Your task to perform on an android device: set the timer Image 0: 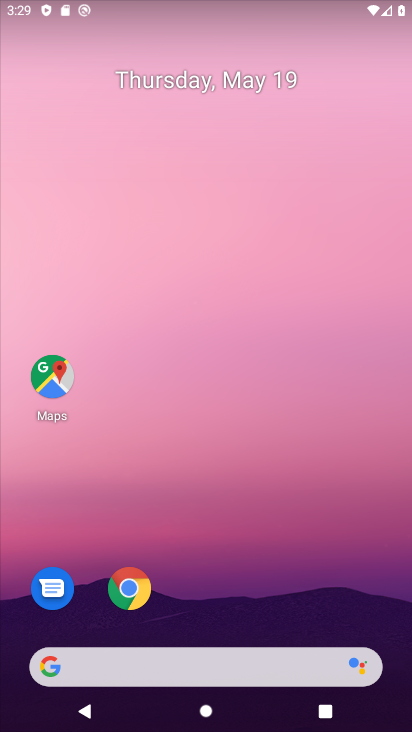
Step 0: drag from (207, 592) to (255, 283)
Your task to perform on an android device: set the timer Image 1: 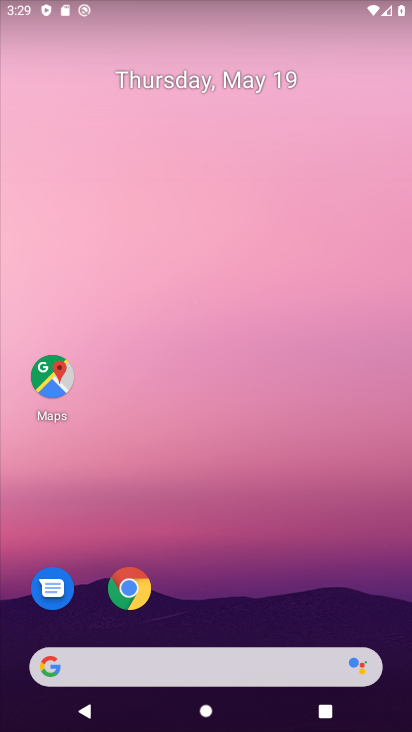
Step 1: drag from (189, 592) to (256, 105)
Your task to perform on an android device: set the timer Image 2: 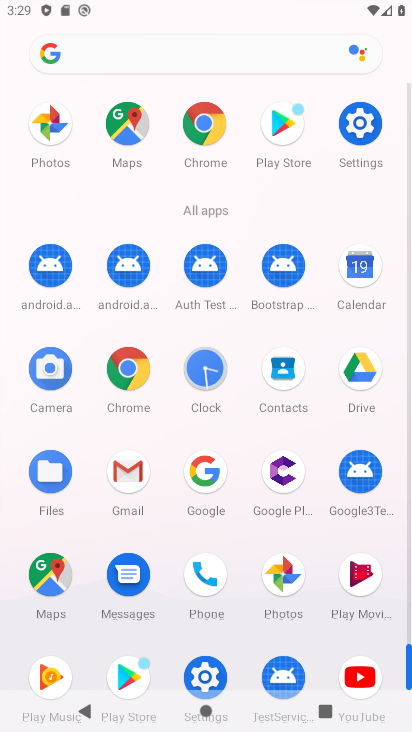
Step 2: click (204, 380)
Your task to perform on an android device: set the timer Image 3: 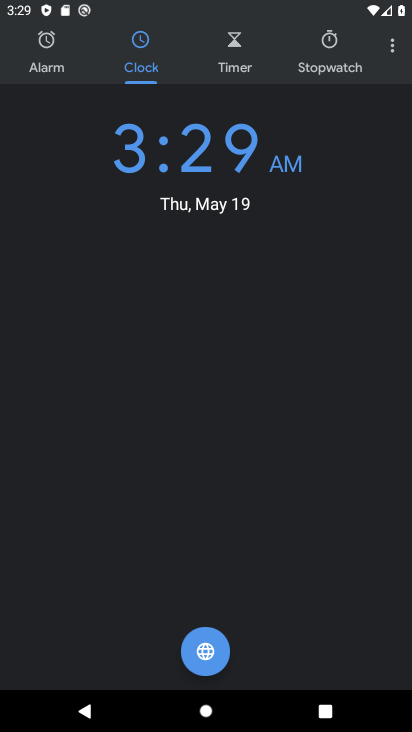
Step 3: click (236, 62)
Your task to perform on an android device: set the timer Image 4: 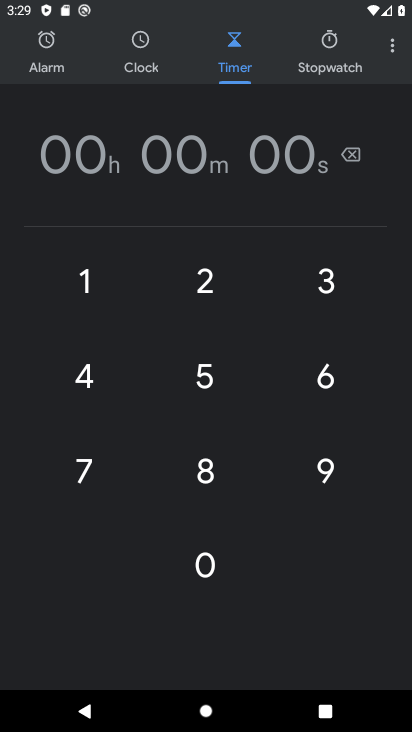
Step 4: click (199, 470)
Your task to perform on an android device: set the timer Image 5: 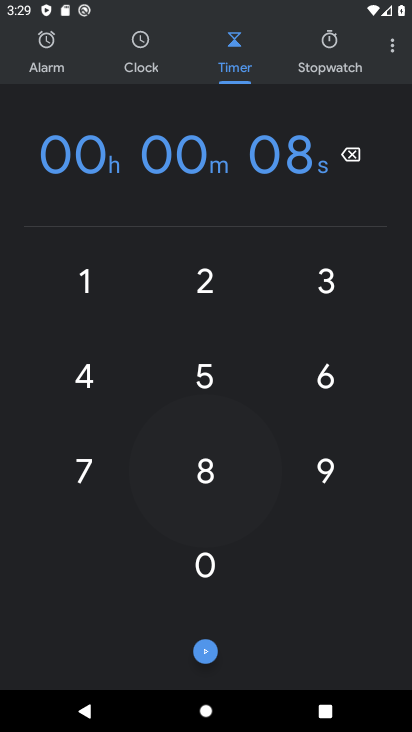
Step 5: click (191, 366)
Your task to perform on an android device: set the timer Image 6: 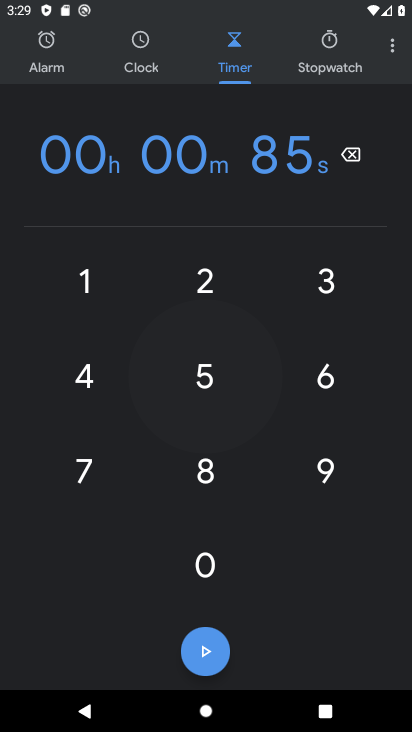
Step 6: click (340, 277)
Your task to perform on an android device: set the timer Image 7: 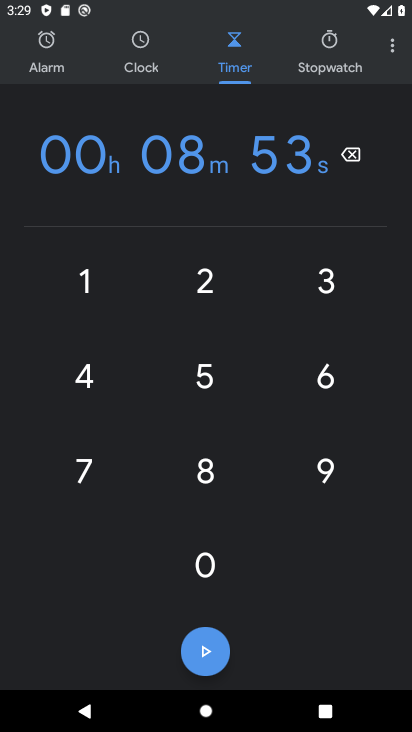
Step 7: click (211, 640)
Your task to perform on an android device: set the timer Image 8: 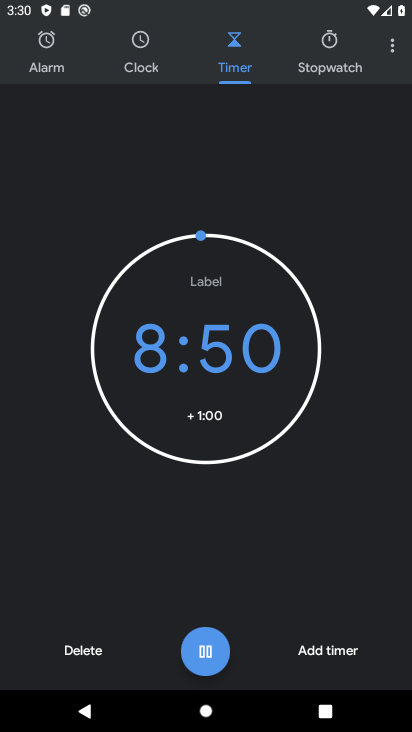
Step 8: task complete